Your task to perform on an android device: turn on data saver in the chrome app Image 0: 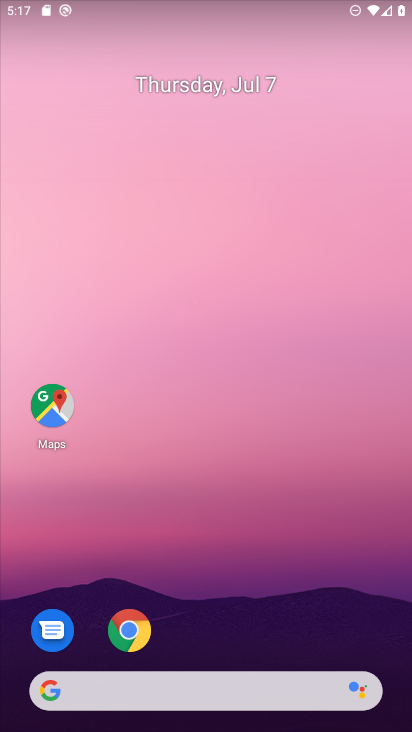
Step 0: drag from (267, 628) to (208, 112)
Your task to perform on an android device: turn on data saver in the chrome app Image 1: 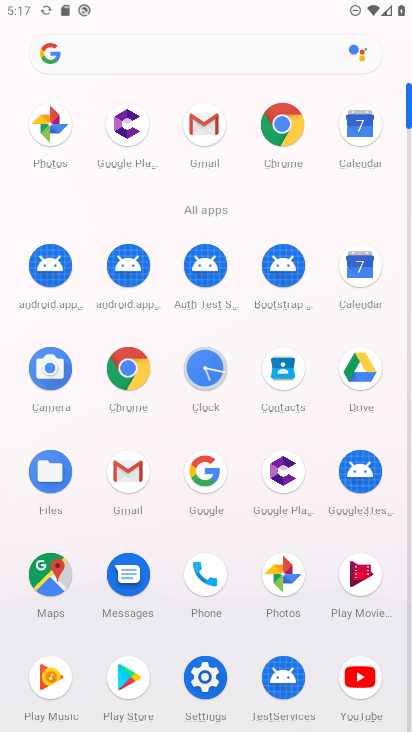
Step 1: click (278, 130)
Your task to perform on an android device: turn on data saver in the chrome app Image 2: 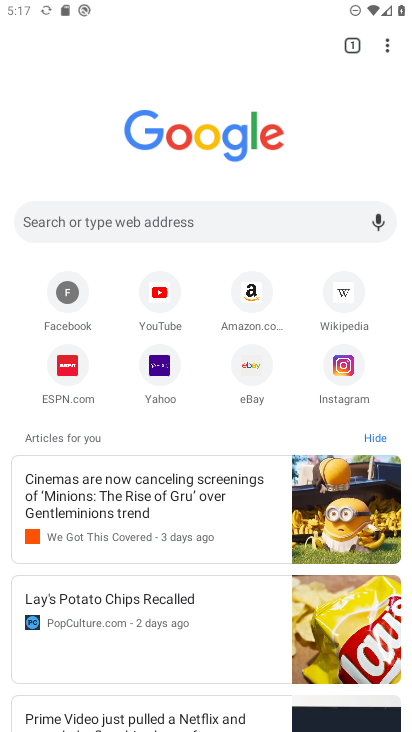
Step 2: drag from (383, 47) to (238, 382)
Your task to perform on an android device: turn on data saver in the chrome app Image 3: 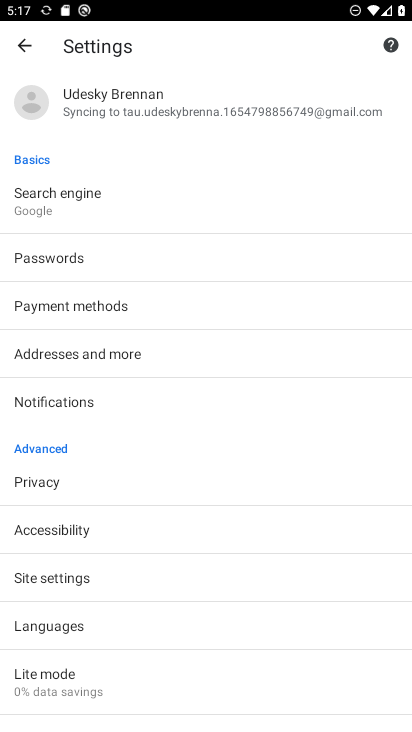
Step 3: click (39, 683)
Your task to perform on an android device: turn on data saver in the chrome app Image 4: 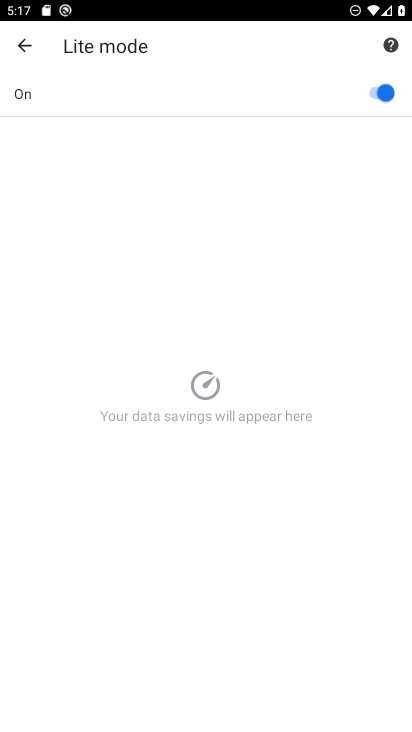
Step 4: task complete